Your task to perform on an android device: make emails show in primary in the gmail app Image 0: 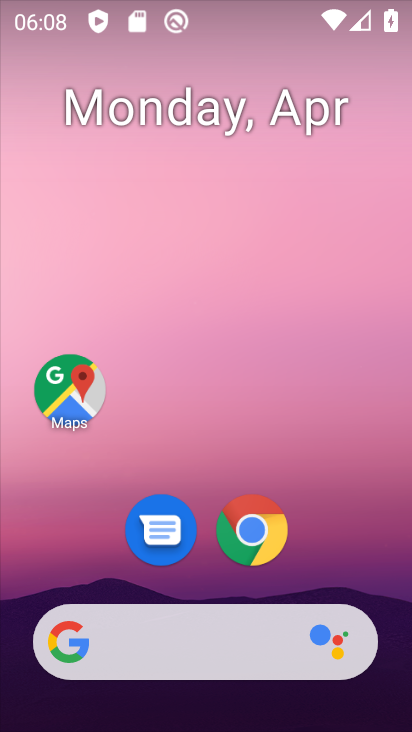
Step 0: drag from (202, 585) to (222, 71)
Your task to perform on an android device: make emails show in primary in the gmail app Image 1: 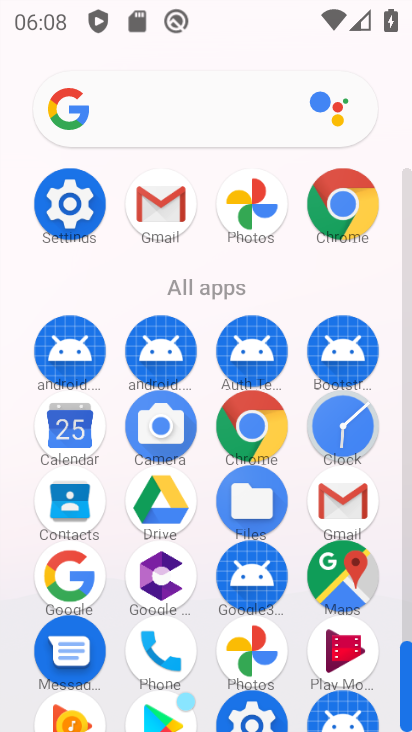
Step 1: click (342, 490)
Your task to perform on an android device: make emails show in primary in the gmail app Image 2: 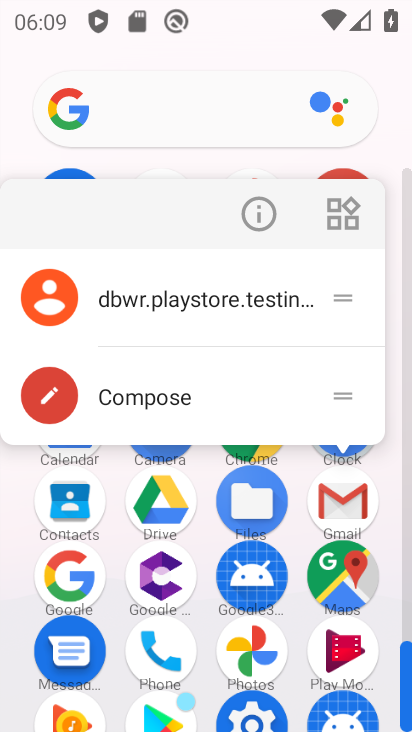
Step 2: click (357, 500)
Your task to perform on an android device: make emails show in primary in the gmail app Image 3: 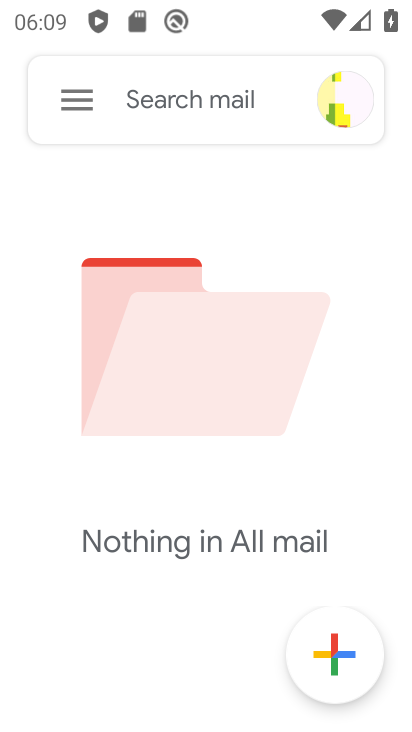
Step 3: click (72, 99)
Your task to perform on an android device: make emails show in primary in the gmail app Image 4: 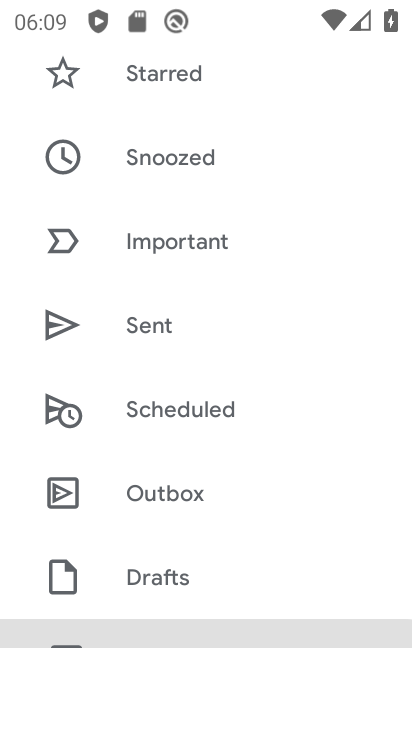
Step 4: drag from (187, 542) to (239, 55)
Your task to perform on an android device: make emails show in primary in the gmail app Image 5: 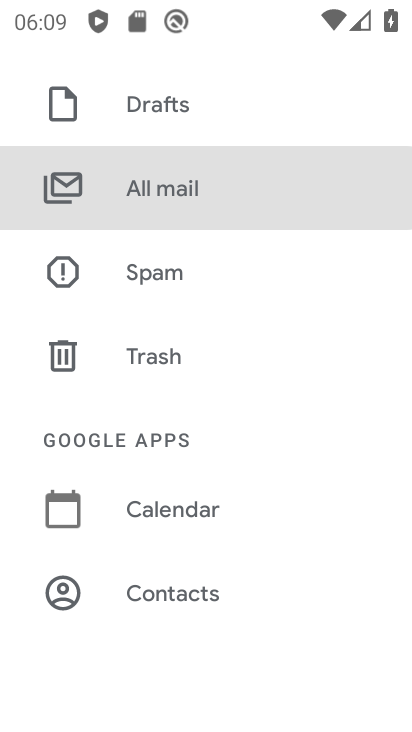
Step 5: drag from (190, 547) to (230, 149)
Your task to perform on an android device: make emails show in primary in the gmail app Image 6: 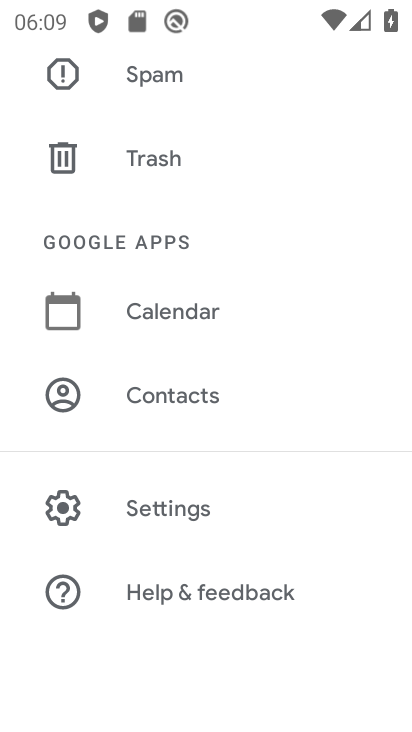
Step 6: click (192, 514)
Your task to perform on an android device: make emails show in primary in the gmail app Image 7: 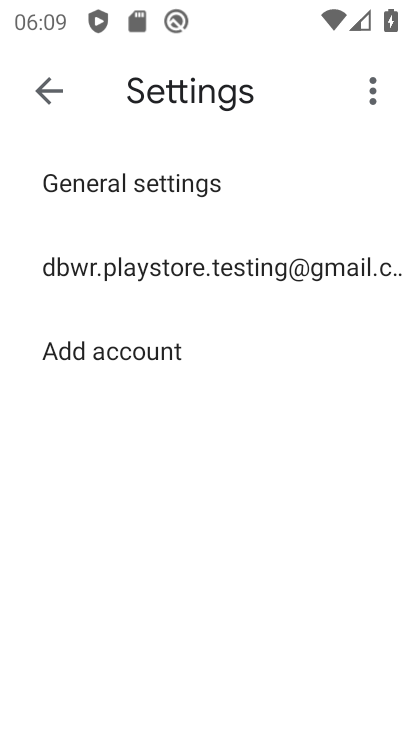
Step 7: click (225, 265)
Your task to perform on an android device: make emails show in primary in the gmail app Image 8: 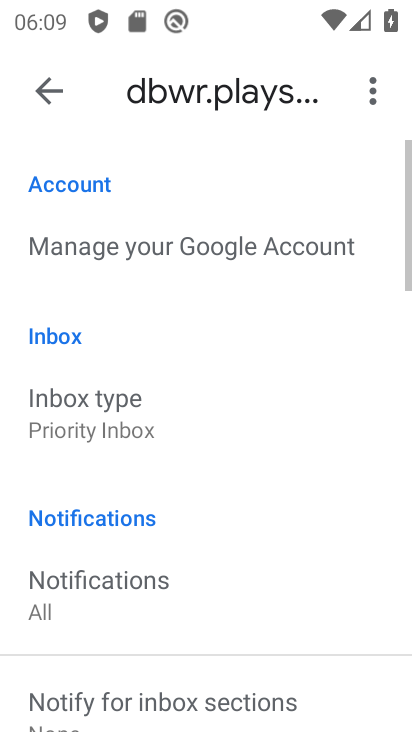
Step 8: click (150, 412)
Your task to perform on an android device: make emails show in primary in the gmail app Image 9: 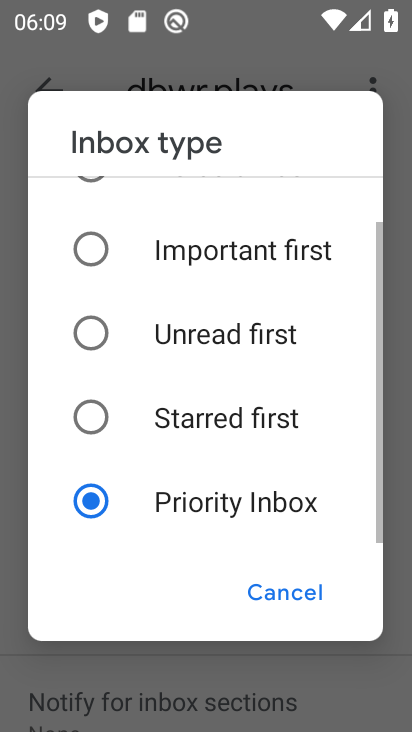
Step 9: drag from (138, 254) to (138, 530)
Your task to perform on an android device: make emails show in primary in the gmail app Image 10: 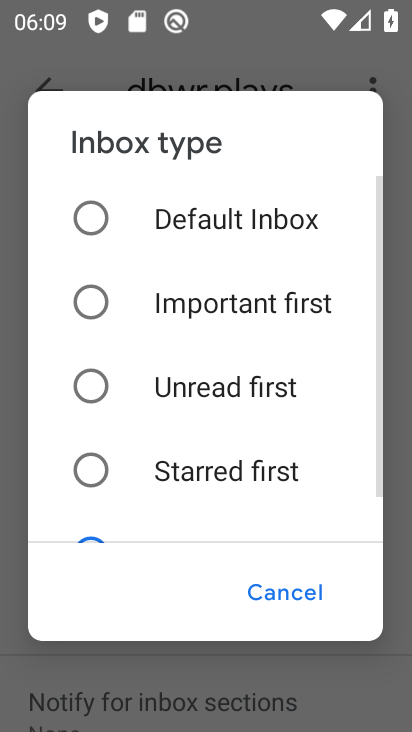
Step 10: click (86, 213)
Your task to perform on an android device: make emails show in primary in the gmail app Image 11: 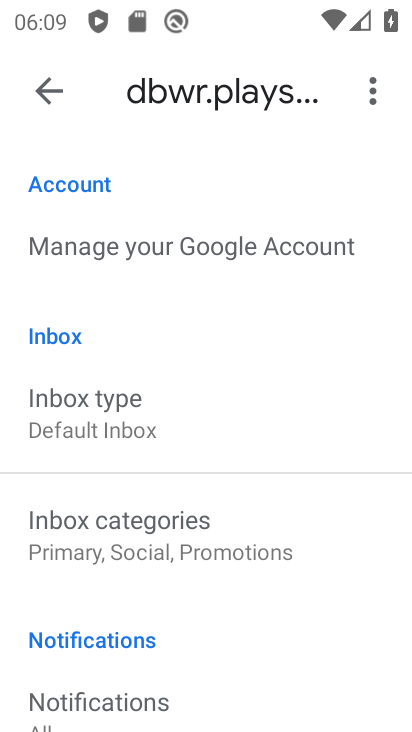
Step 11: task complete